Your task to perform on an android device: Do I have any events this weekend? Image 0: 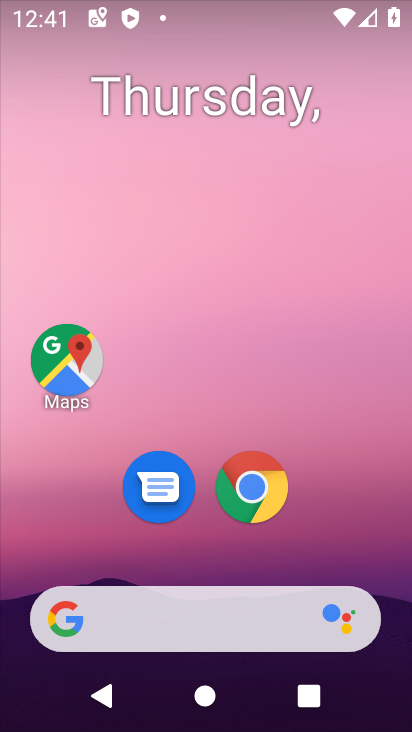
Step 0: drag from (364, 548) to (294, 5)
Your task to perform on an android device: Do I have any events this weekend? Image 1: 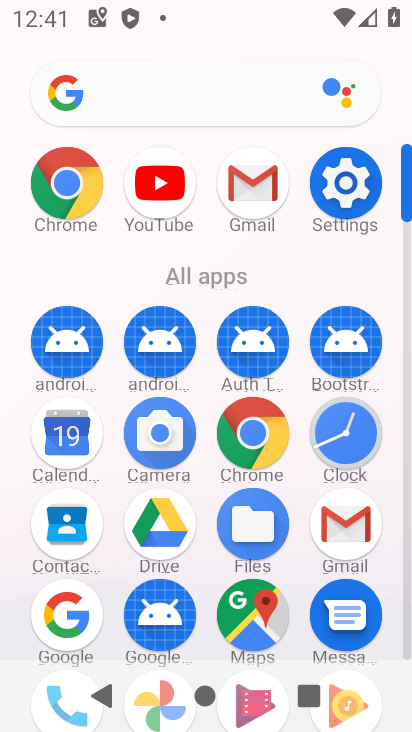
Step 1: click (75, 427)
Your task to perform on an android device: Do I have any events this weekend? Image 2: 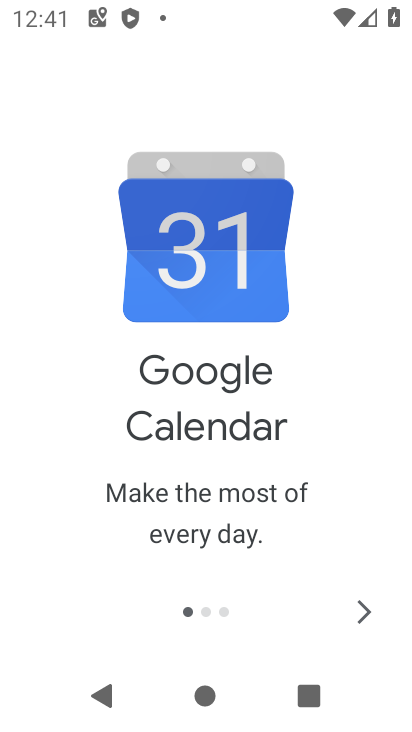
Step 2: click (366, 625)
Your task to perform on an android device: Do I have any events this weekend? Image 3: 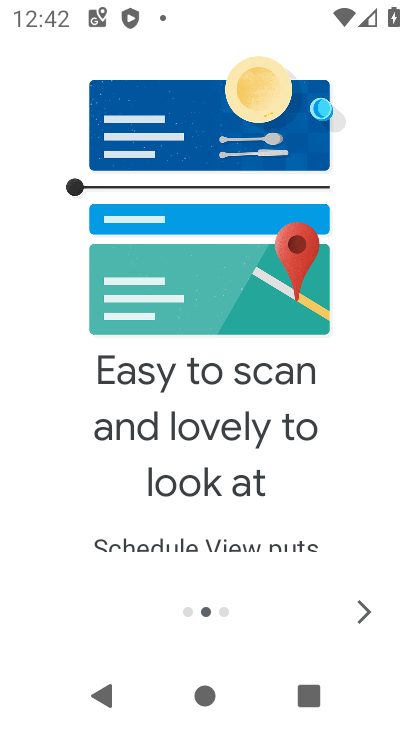
Step 3: click (366, 625)
Your task to perform on an android device: Do I have any events this weekend? Image 4: 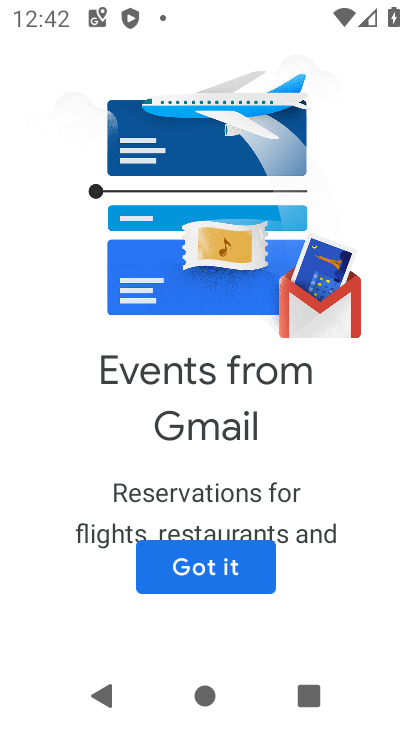
Step 4: click (229, 569)
Your task to perform on an android device: Do I have any events this weekend? Image 5: 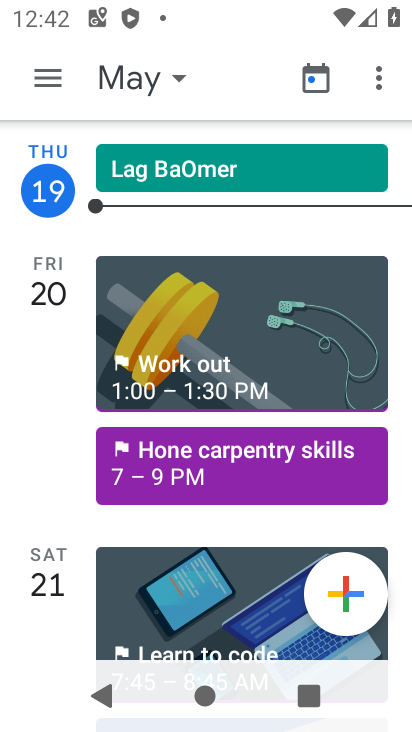
Step 5: click (48, 79)
Your task to perform on an android device: Do I have any events this weekend? Image 6: 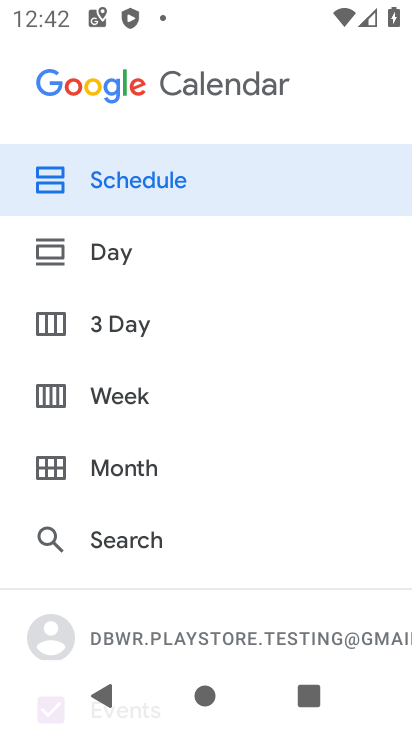
Step 6: drag from (169, 563) to (189, 142)
Your task to perform on an android device: Do I have any events this weekend? Image 7: 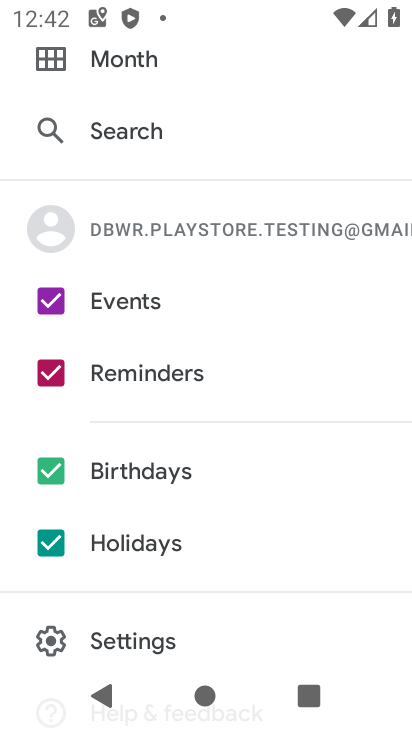
Step 7: click (55, 545)
Your task to perform on an android device: Do I have any events this weekend? Image 8: 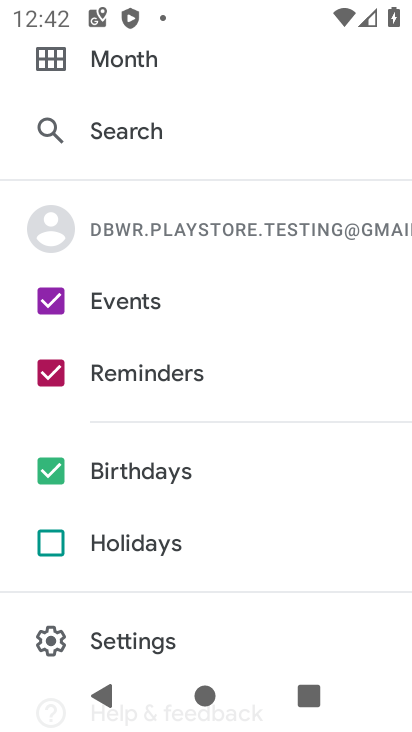
Step 8: click (52, 470)
Your task to perform on an android device: Do I have any events this weekend? Image 9: 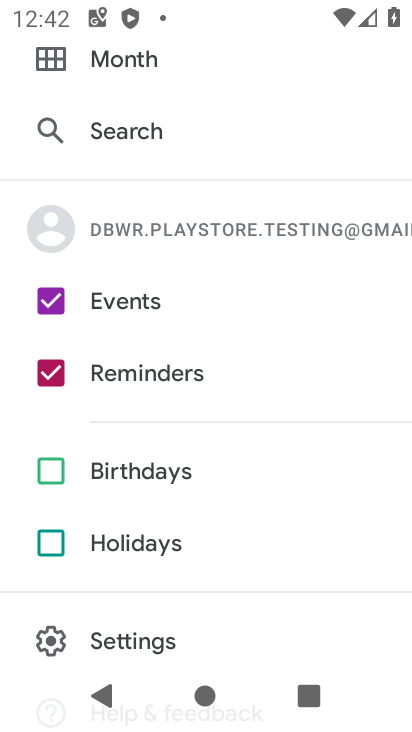
Step 9: click (49, 373)
Your task to perform on an android device: Do I have any events this weekend? Image 10: 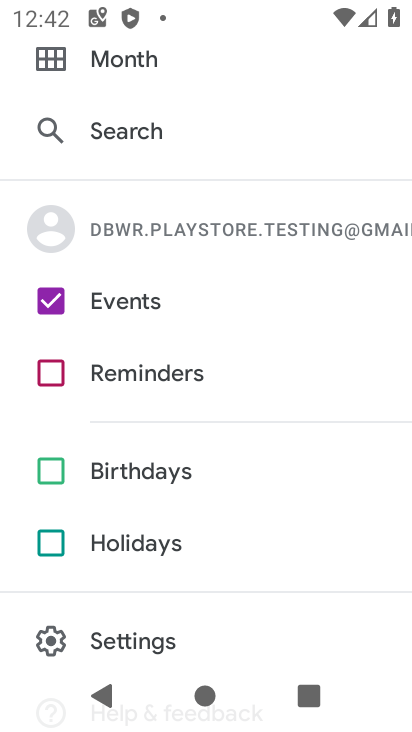
Step 10: drag from (190, 99) to (194, 560)
Your task to perform on an android device: Do I have any events this weekend? Image 11: 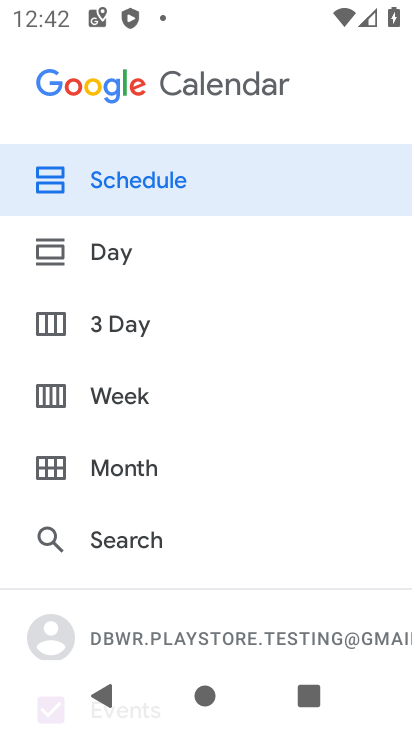
Step 11: click (226, 387)
Your task to perform on an android device: Do I have any events this weekend? Image 12: 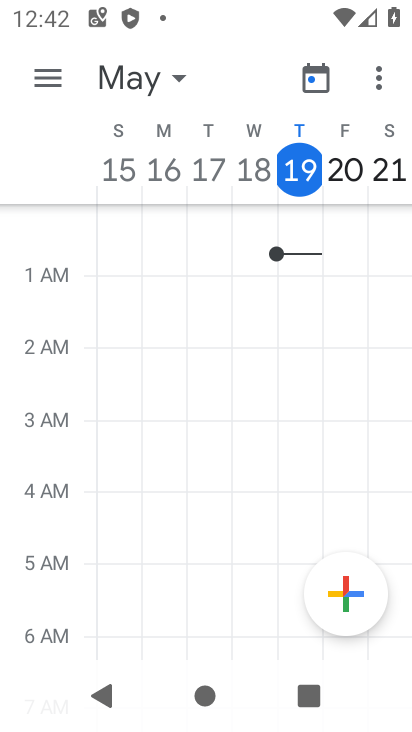
Step 12: click (63, 73)
Your task to perform on an android device: Do I have any events this weekend? Image 13: 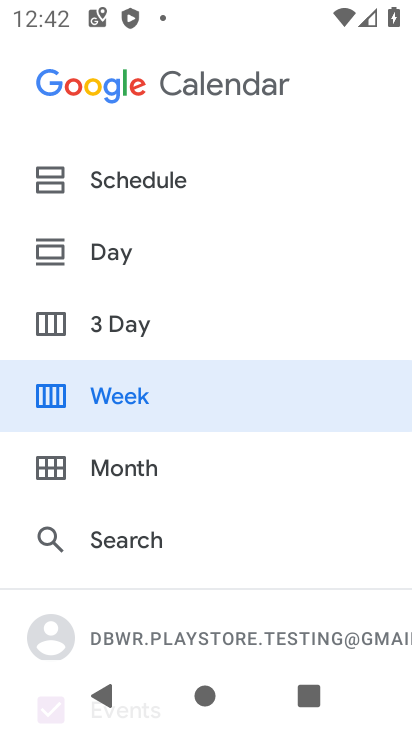
Step 13: click (118, 320)
Your task to perform on an android device: Do I have any events this weekend? Image 14: 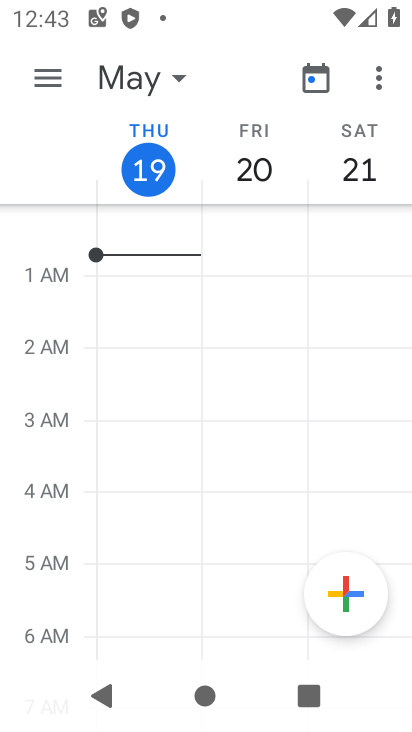
Step 14: task complete